Your task to perform on an android device: clear history in the chrome app Image 0: 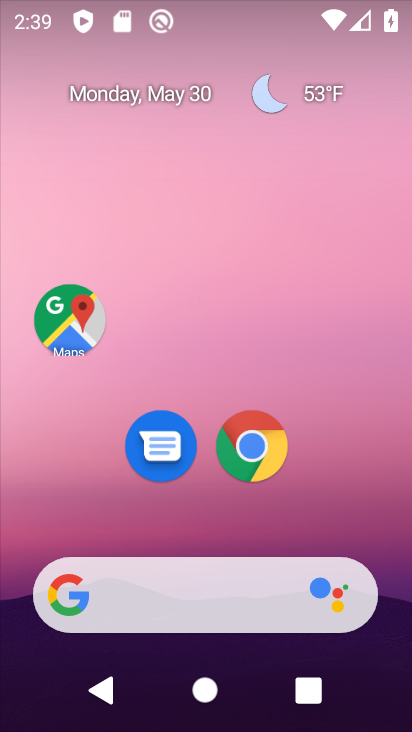
Step 0: click (264, 448)
Your task to perform on an android device: clear history in the chrome app Image 1: 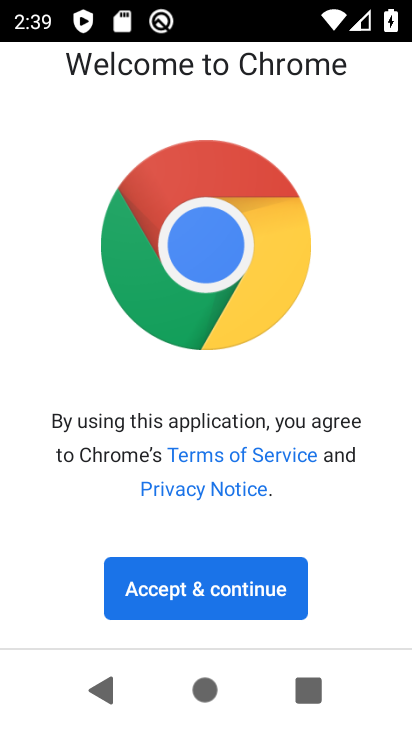
Step 1: click (263, 589)
Your task to perform on an android device: clear history in the chrome app Image 2: 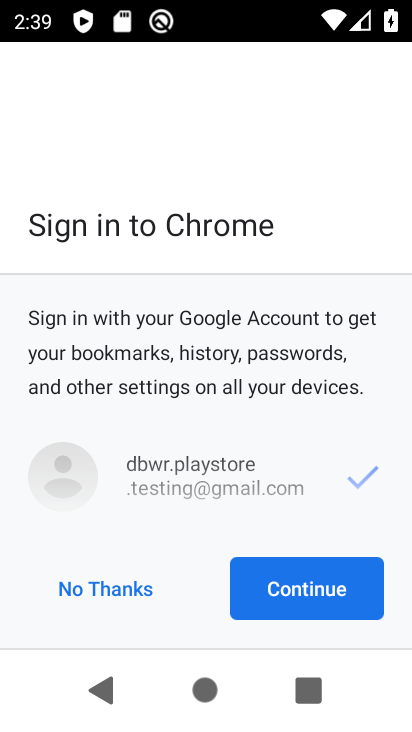
Step 2: click (288, 607)
Your task to perform on an android device: clear history in the chrome app Image 3: 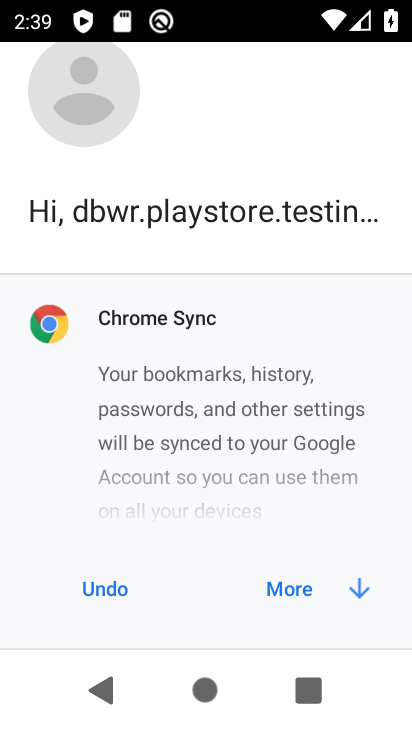
Step 3: click (301, 599)
Your task to perform on an android device: clear history in the chrome app Image 4: 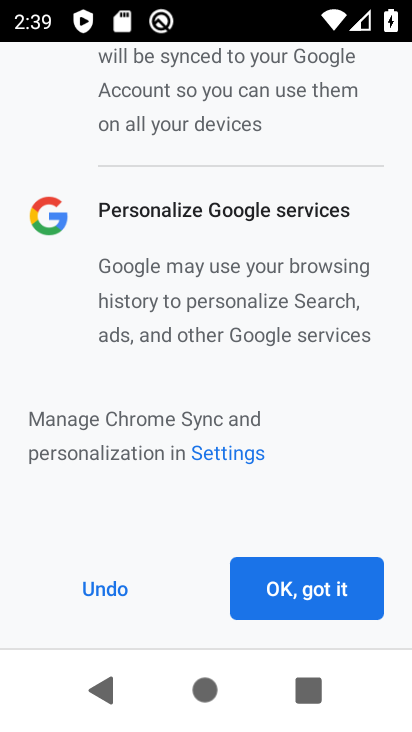
Step 4: click (337, 605)
Your task to perform on an android device: clear history in the chrome app Image 5: 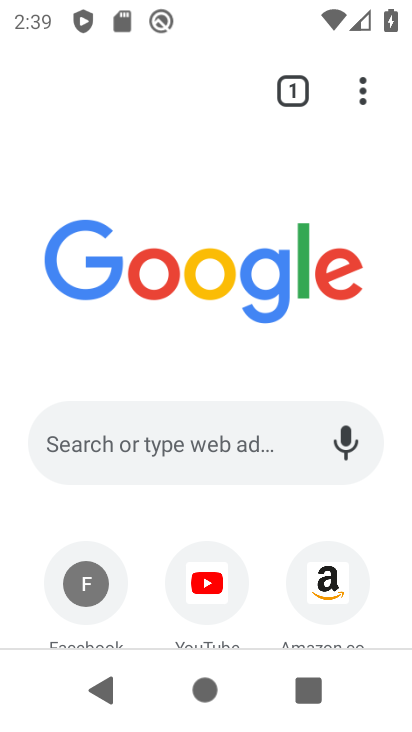
Step 5: task complete